Your task to perform on an android device: open sync settings in chrome Image 0: 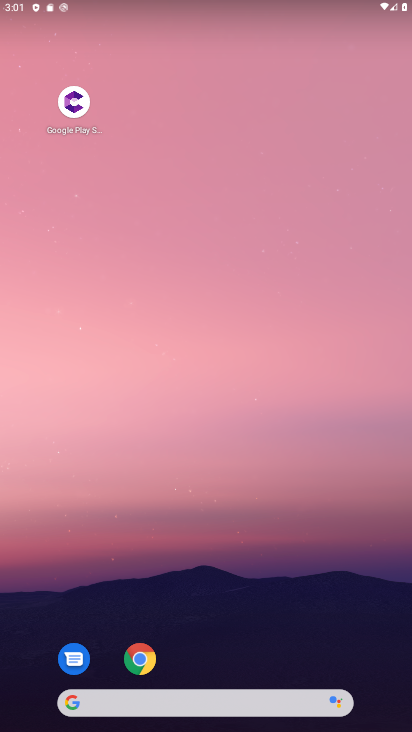
Step 0: click (148, 661)
Your task to perform on an android device: open sync settings in chrome Image 1: 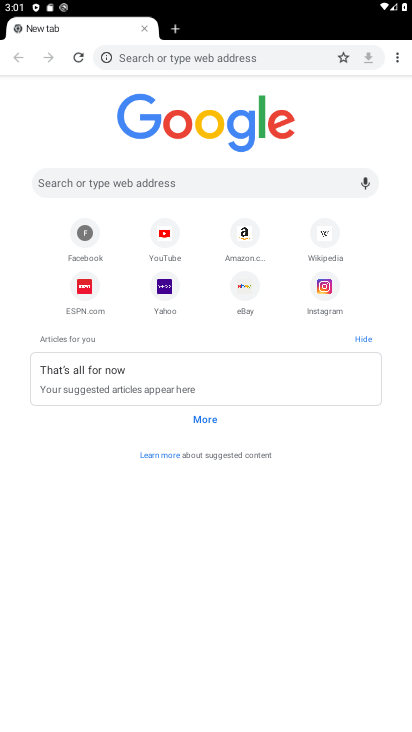
Step 1: drag from (398, 56) to (268, 269)
Your task to perform on an android device: open sync settings in chrome Image 2: 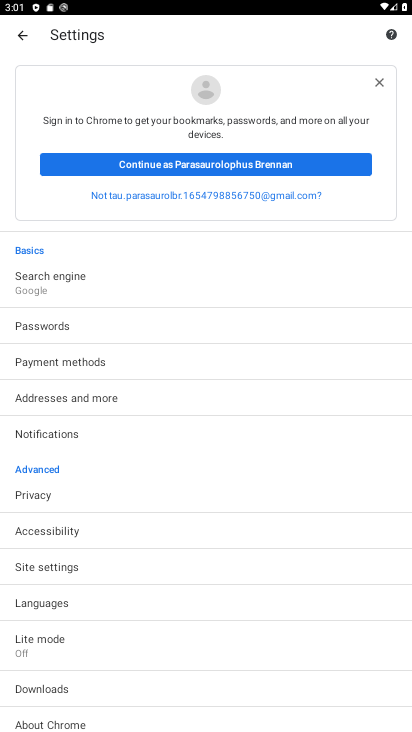
Step 2: click (195, 166)
Your task to perform on an android device: open sync settings in chrome Image 3: 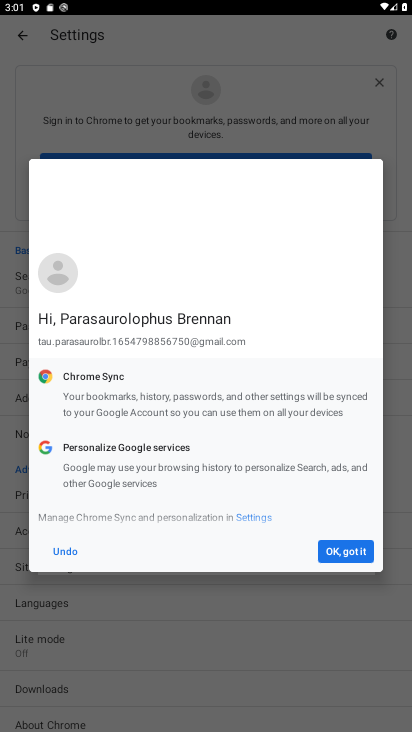
Step 3: click (355, 559)
Your task to perform on an android device: open sync settings in chrome Image 4: 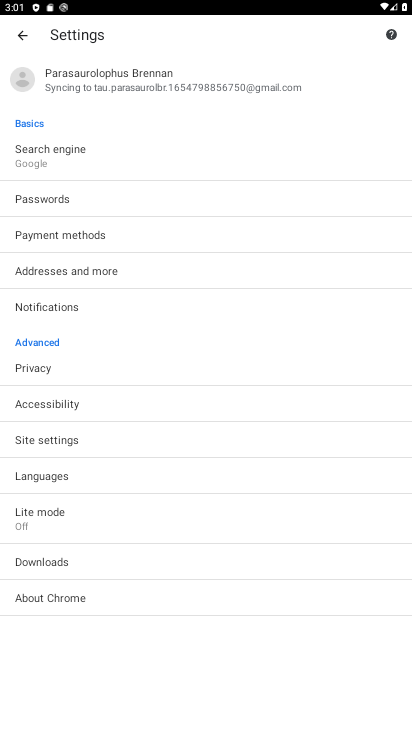
Step 4: click (101, 89)
Your task to perform on an android device: open sync settings in chrome Image 5: 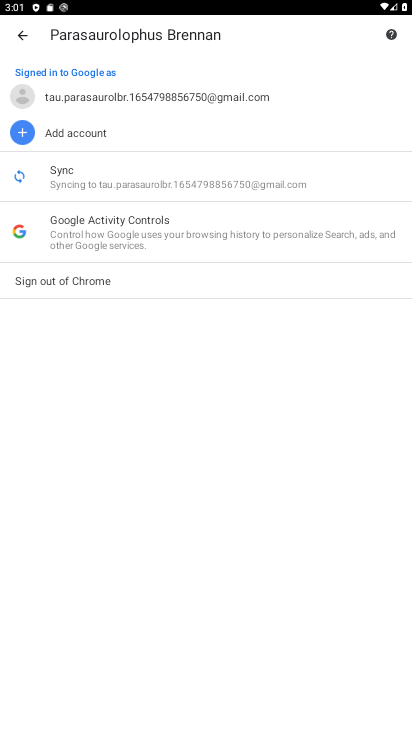
Step 5: click (79, 187)
Your task to perform on an android device: open sync settings in chrome Image 6: 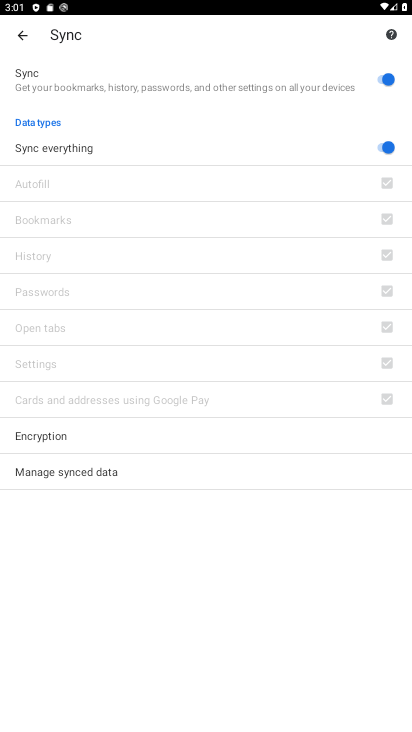
Step 6: task complete